Your task to perform on an android device: set an alarm Image 0: 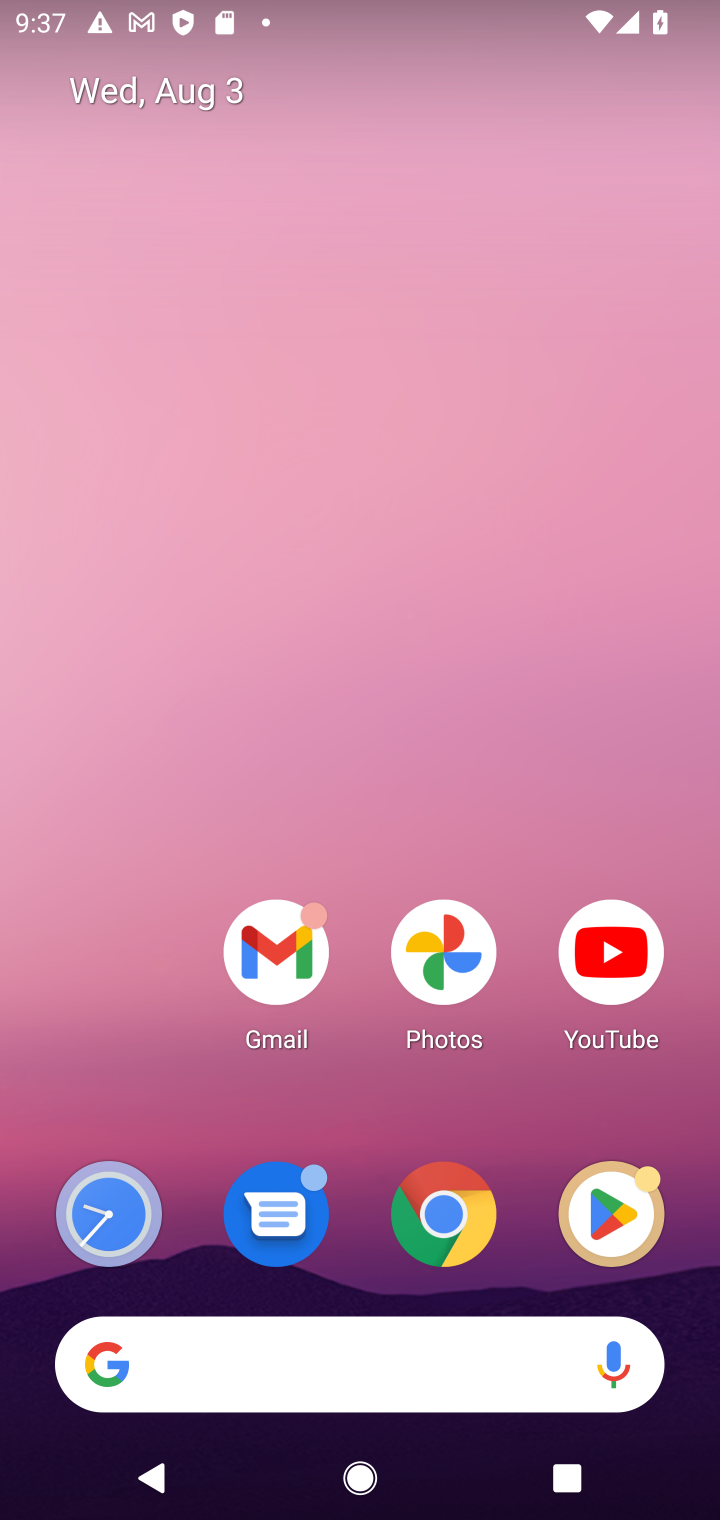
Step 0: press home button
Your task to perform on an android device: set an alarm Image 1: 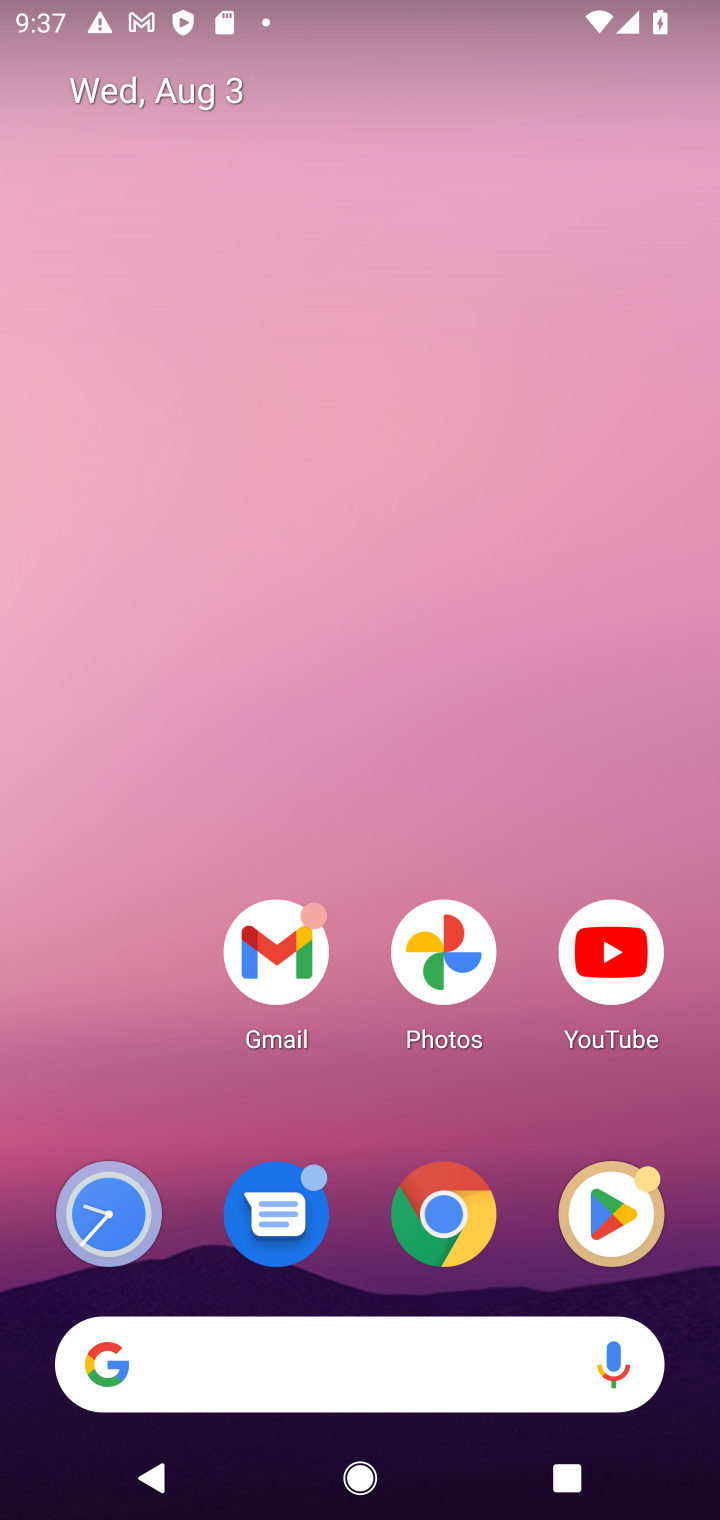
Step 1: click (109, 1219)
Your task to perform on an android device: set an alarm Image 2: 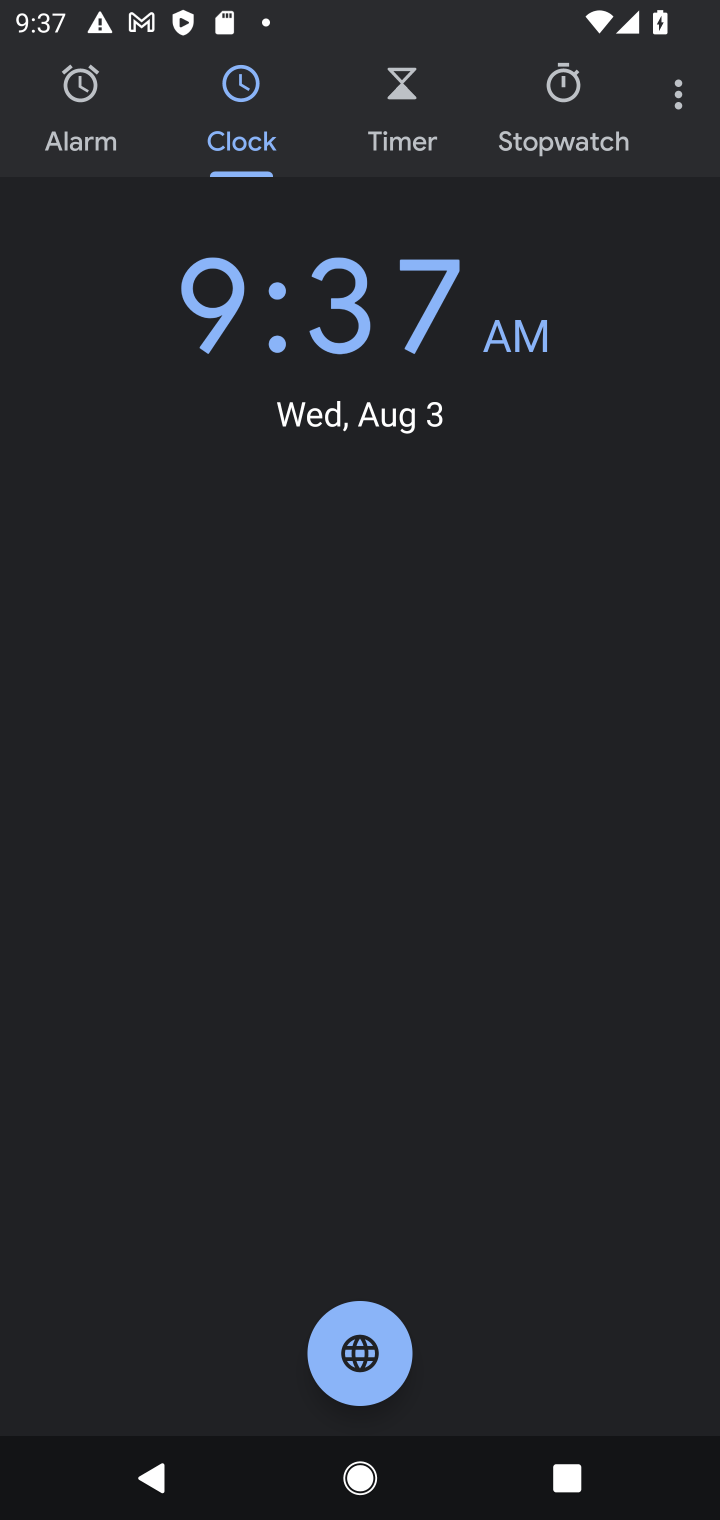
Step 2: click (64, 116)
Your task to perform on an android device: set an alarm Image 3: 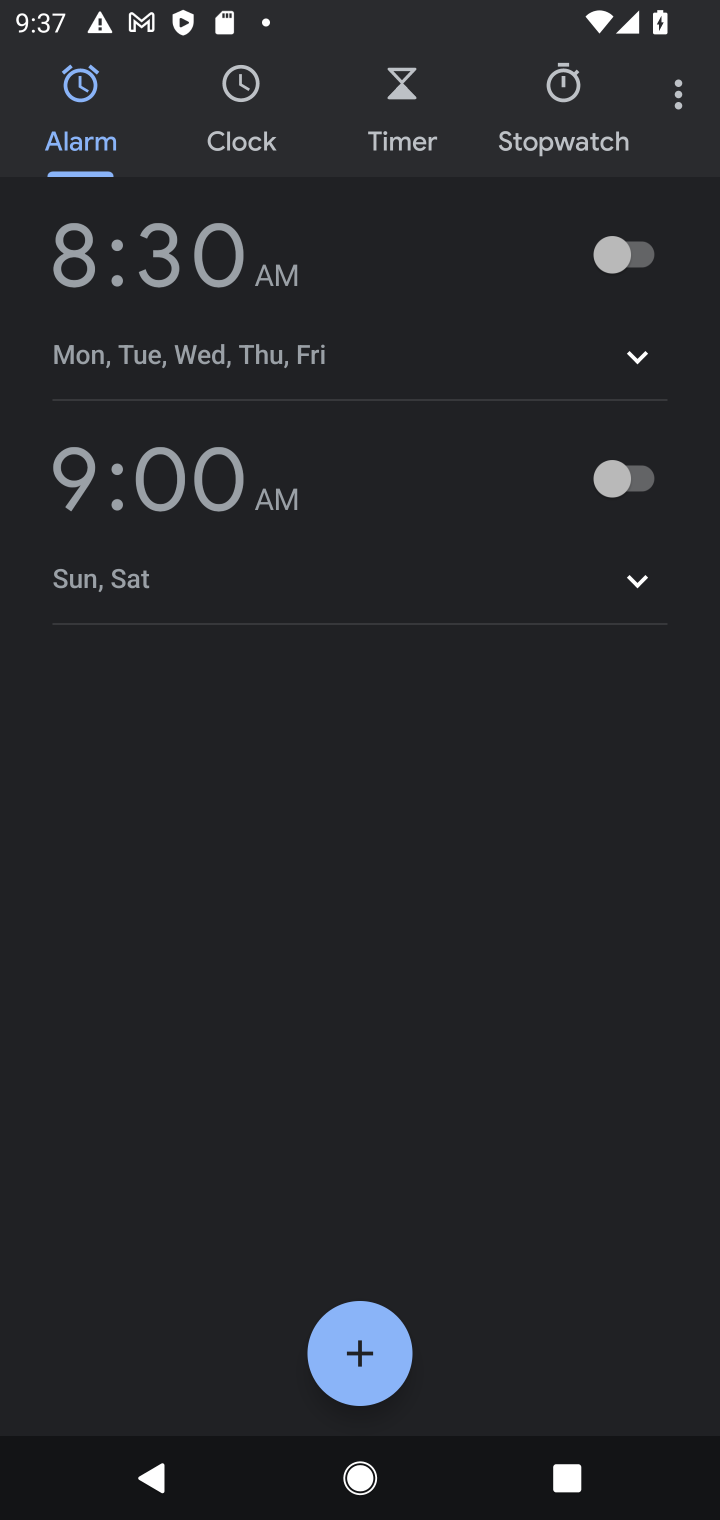
Step 3: click (364, 1336)
Your task to perform on an android device: set an alarm Image 4: 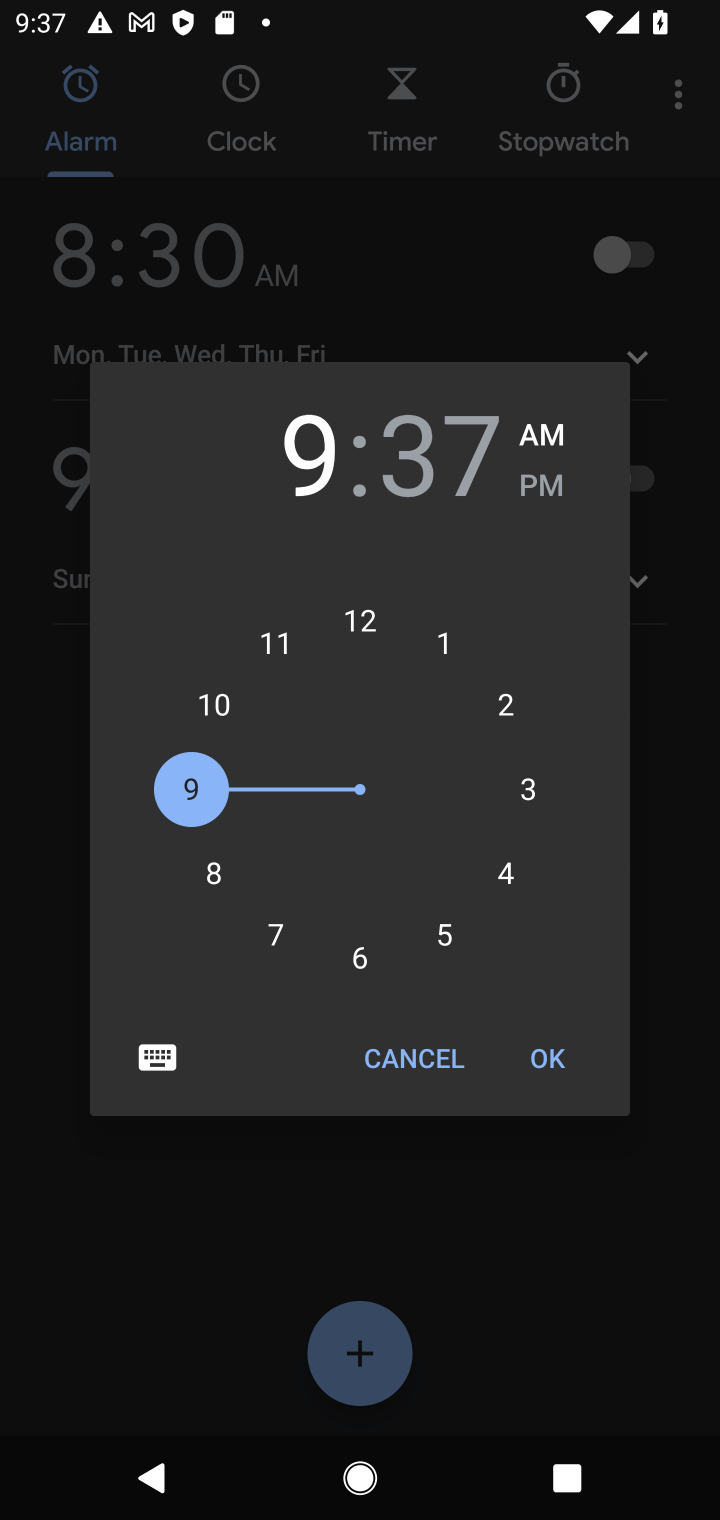
Step 4: click (353, 939)
Your task to perform on an android device: set an alarm Image 5: 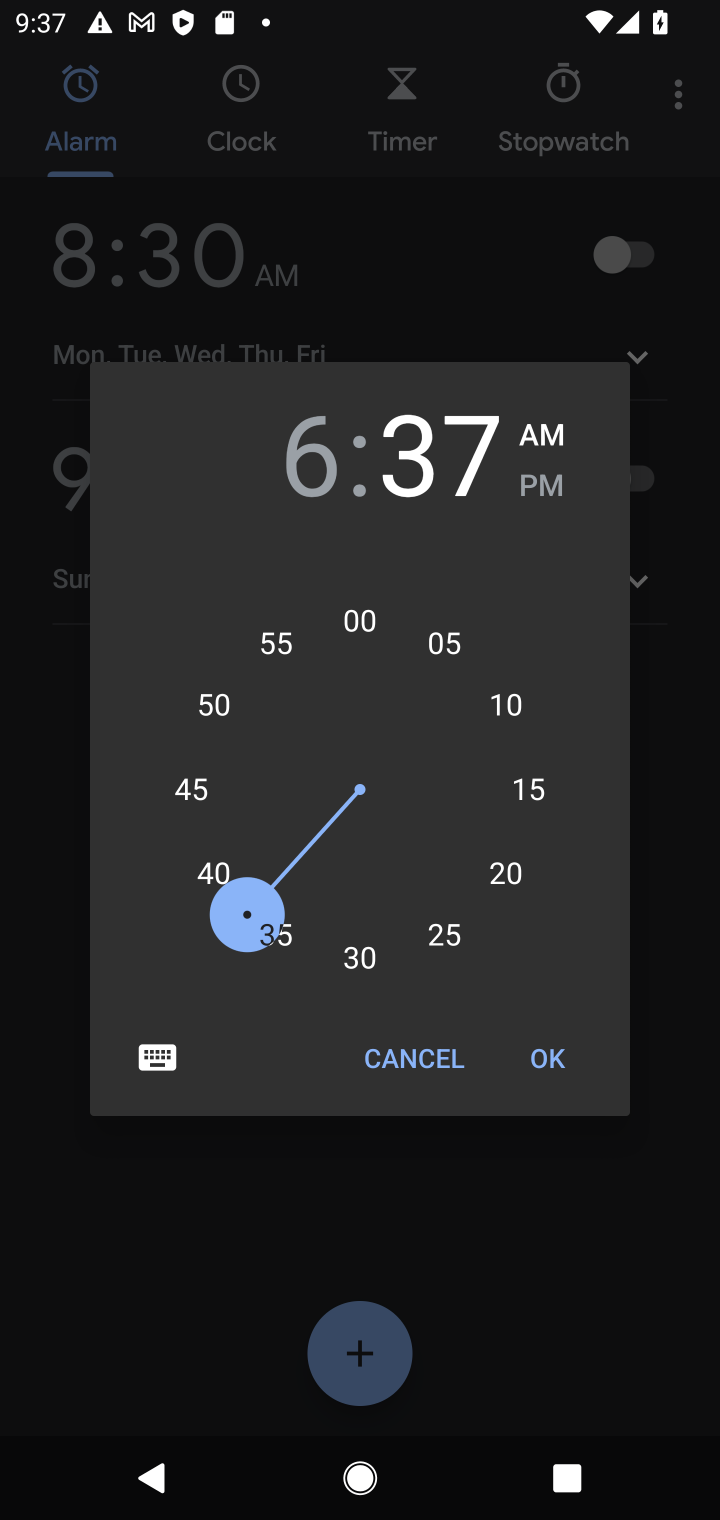
Step 5: click (353, 939)
Your task to perform on an android device: set an alarm Image 6: 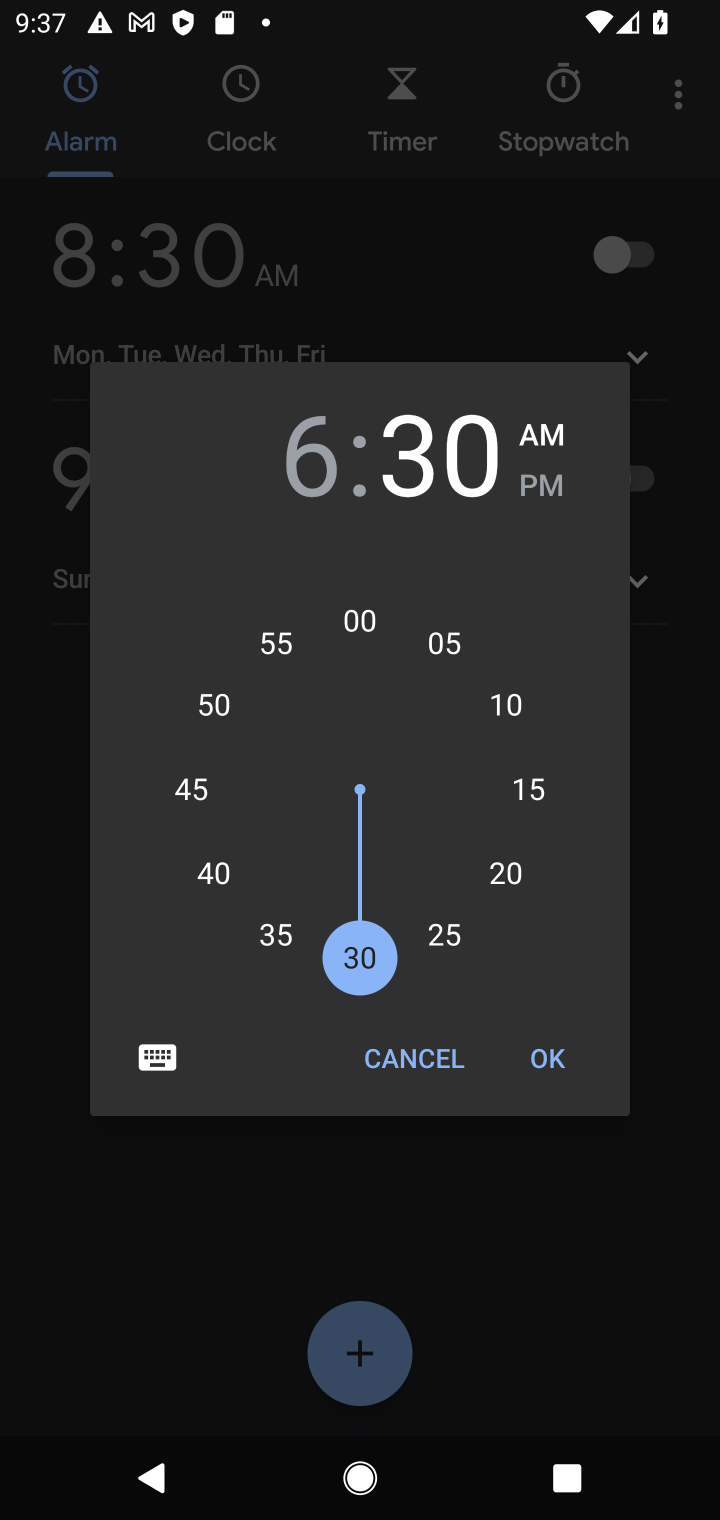
Step 6: click (553, 1051)
Your task to perform on an android device: set an alarm Image 7: 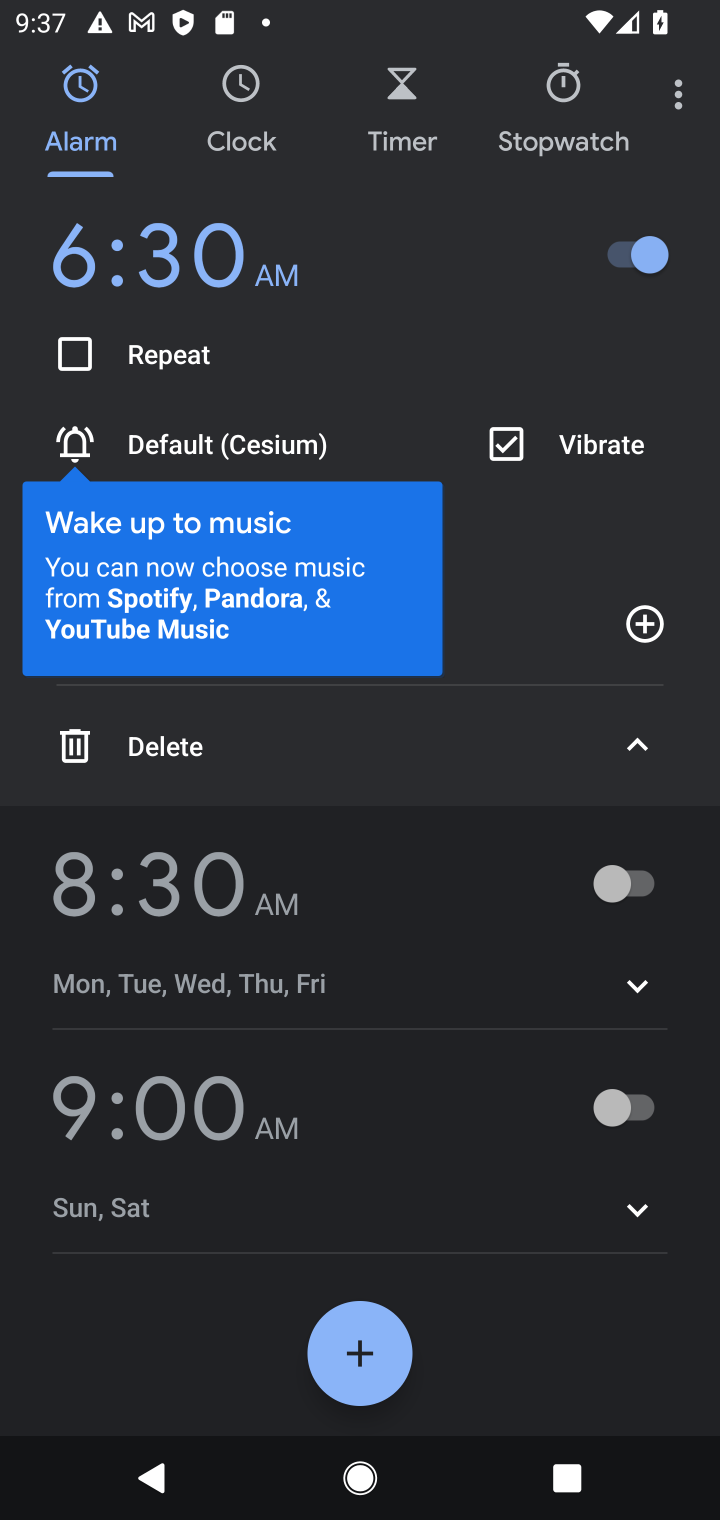
Step 7: task complete